Your task to perform on an android device: change text size in settings app Image 0: 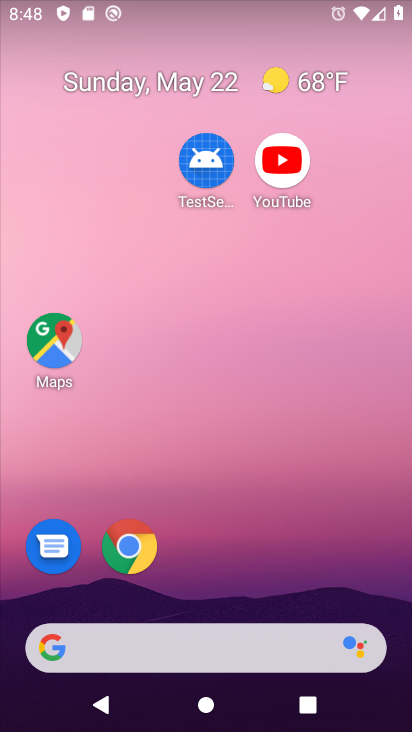
Step 0: drag from (383, 690) to (235, 224)
Your task to perform on an android device: change text size in settings app Image 1: 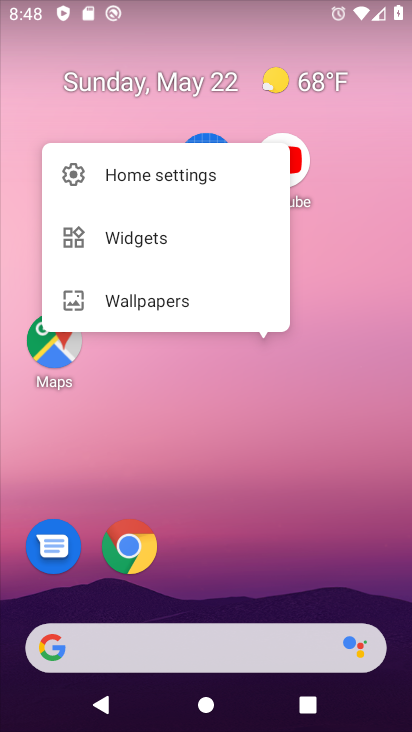
Step 1: click (242, 413)
Your task to perform on an android device: change text size in settings app Image 2: 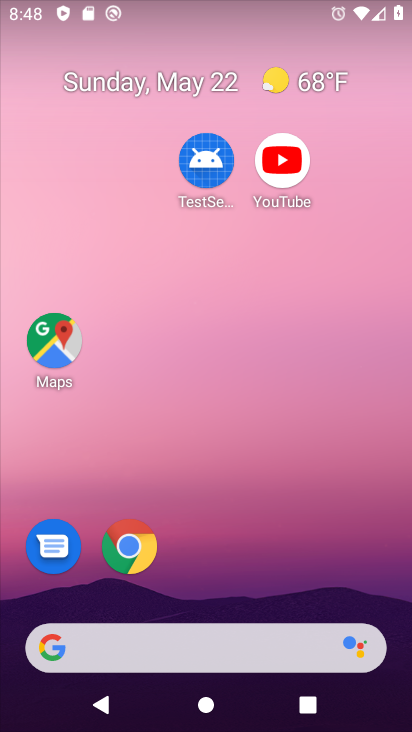
Step 2: click (261, 384)
Your task to perform on an android device: change text size in settings app Image 3: 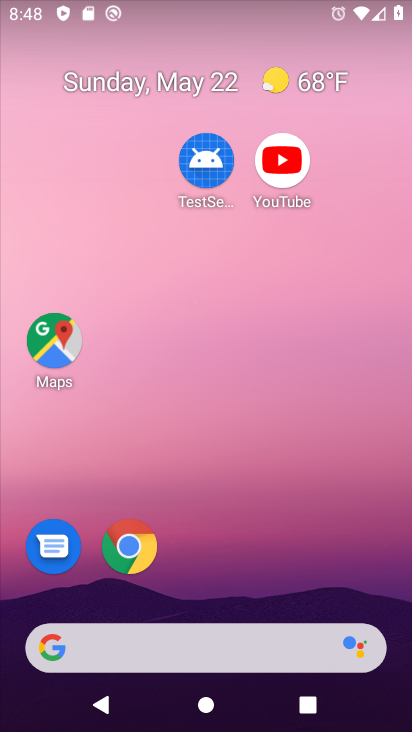
Step 3: click (266, 382)
Your task to perform on an android device: change text size in settings app Image 4: 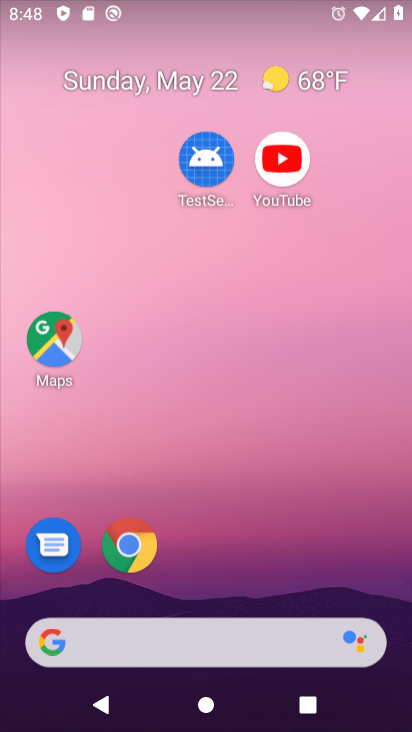
Step 4: drag from (251, 573) to (301, 170)
Your task to perform on an android device: change text size in settings app Image 5: 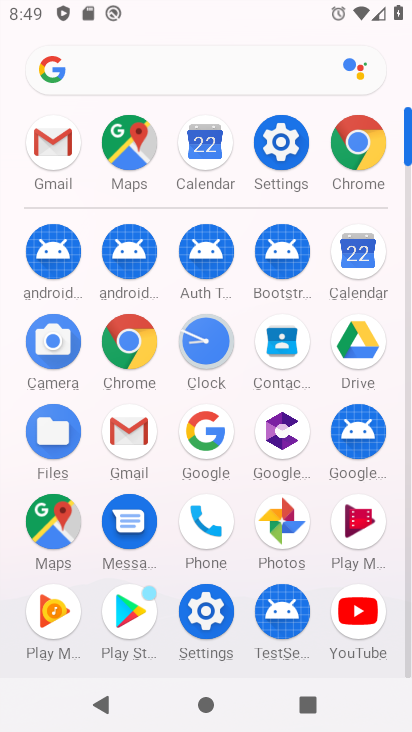
Step 5: click (277, 129)
Your task to perform on an android device: change text size in settings app Image 6: 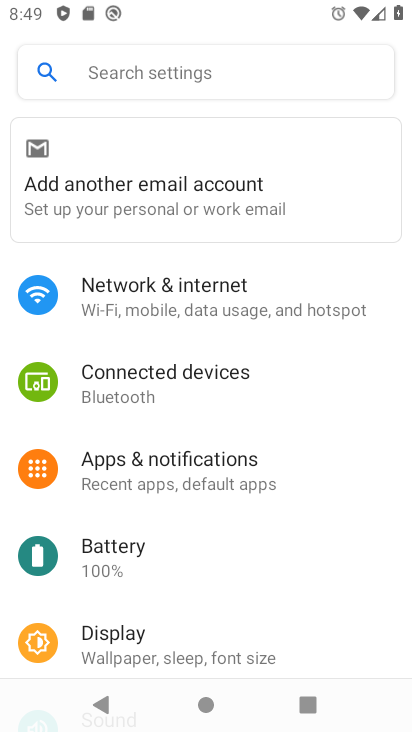
Step 6: drag from (131, 540) to (128, 253)
Your task to perform on an android device: change text size in settings app Image 7: 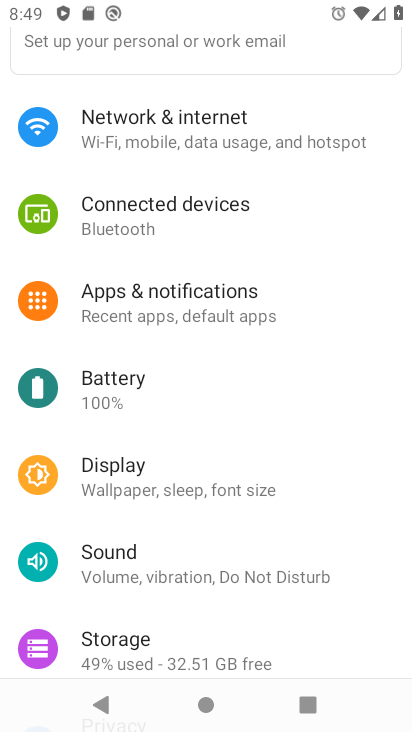
Step 7: drag from (199, 524) to (231, 187)
Your task to perform on an android device: change text size in settings app Image 8: 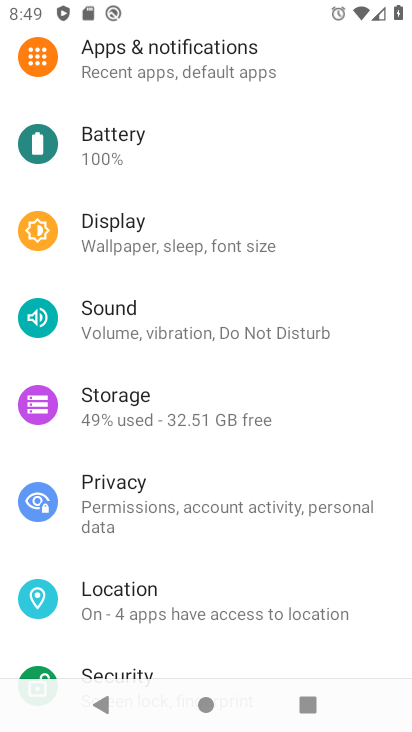
Step 8: drag from (236, 379) to (266, 145)
Your task to perform on an android device: change text size in settings app Image 9: 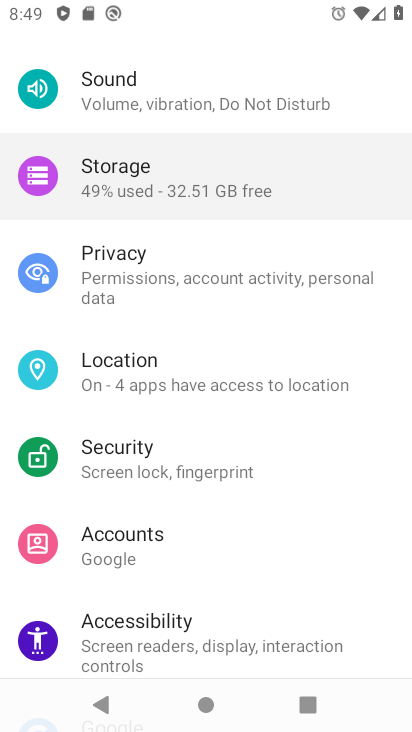
Step 9: drag from (271, 489) to (263, 152)
Your task to perform on an android device: change text size in settings app Image 10: 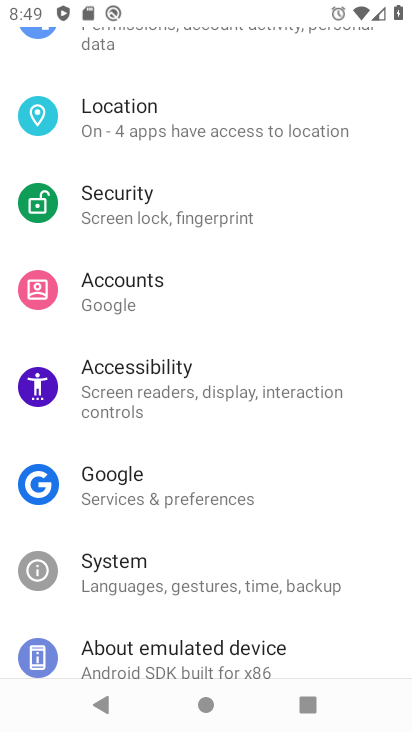
Step 10: drag from (173, 231) to (230, 702)
Your task to perform on an android device: change text size in settings app Image 11: 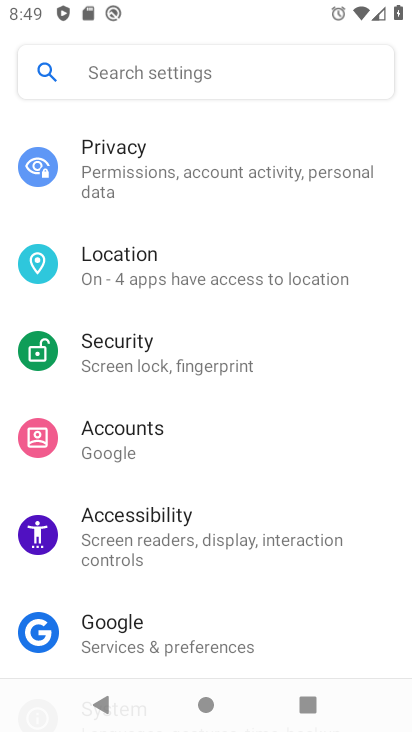
Step 11: drag from (89, 264) to (203, 677)
Your task to perform on an android device: change text size in settings app Image 12: 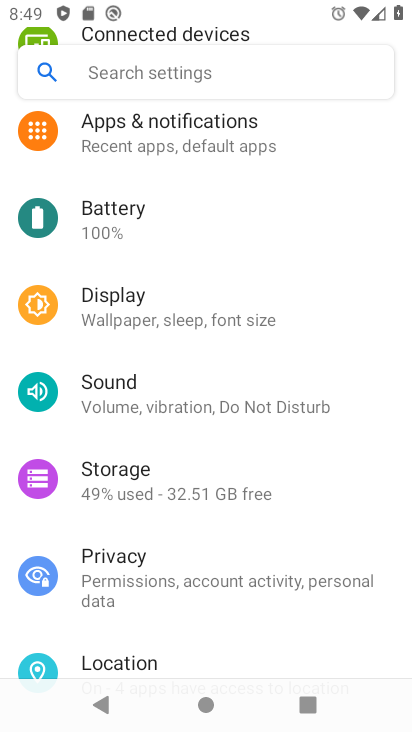
Step 12: click (122, 304)
Your task to perform on an android device: change text size in settings app Image 13: 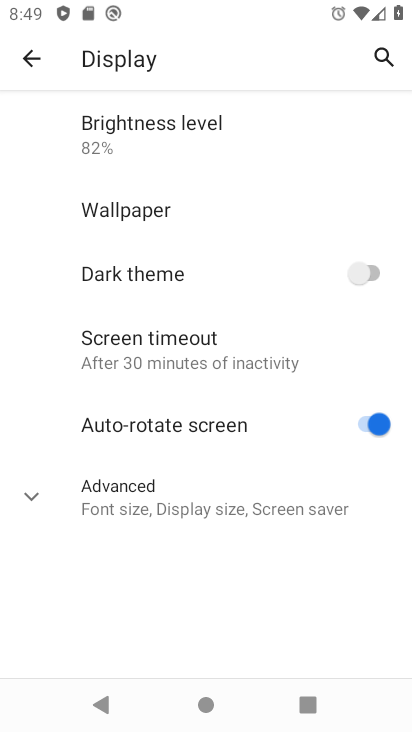
Step 13: click (132, 499)
Your task to perform on an android device: change text size in settings app Image 14: 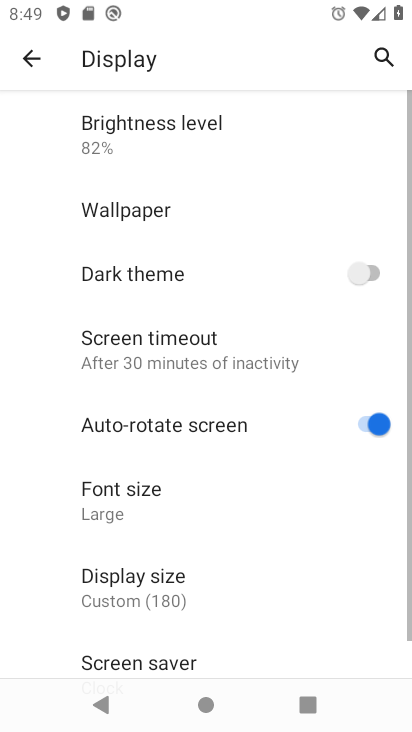
Step 14: click (129, 508)
Your task to perform on an android device: change text size in settings app Image 15: 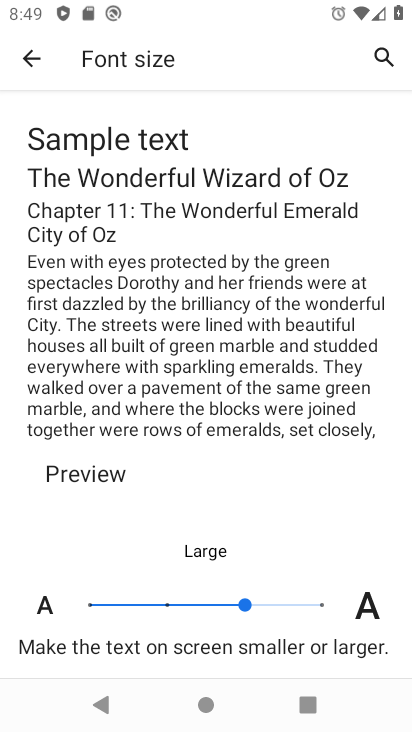
Step 15: click (170, 608)
Your task to perform on an android device: change text size in settings app Image 16: 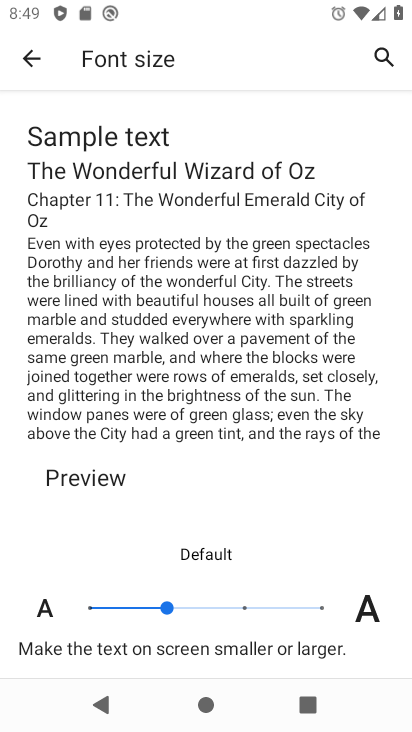
Step 16: task complete